Your task to perform on an android device: open sync settings in chrome Image 0: 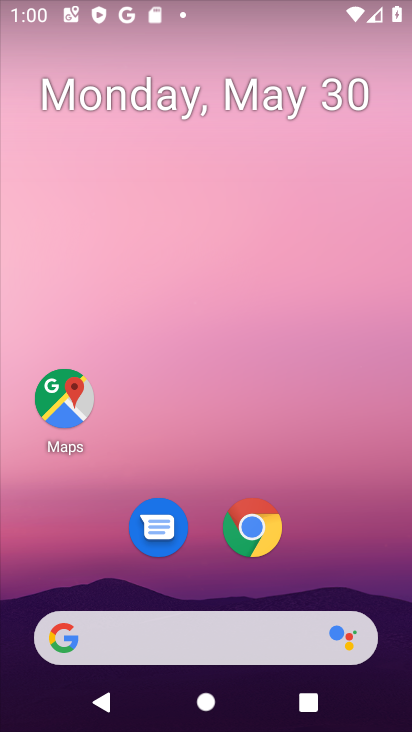
Step 0: click (263, 524)
Your task to perform on an android device: open sync settings in chrome Image 1: 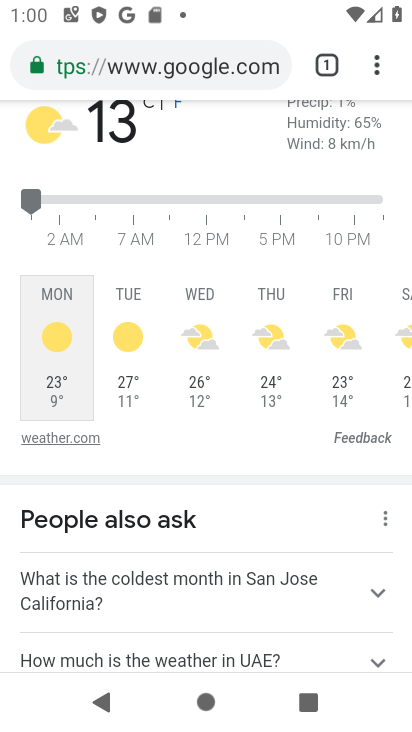
Step 1: click (384, 70)
Your task to perform on an android device: open sync settings in chrome Image 2: 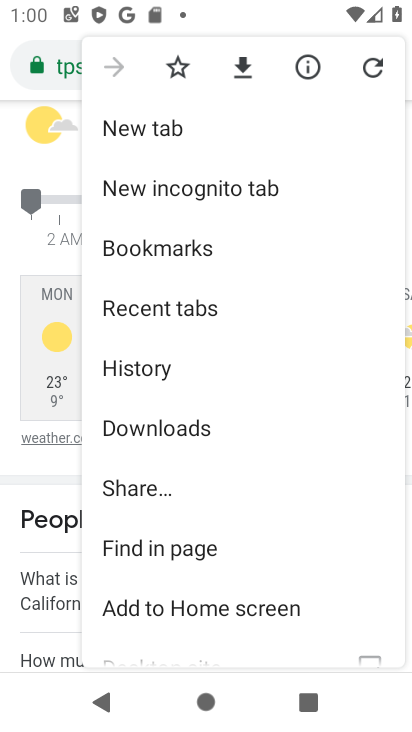
Step 2: drag from (273, 605) to (217, 282)
Your task to perform on an android device: open sync settings in chrome Image 3: 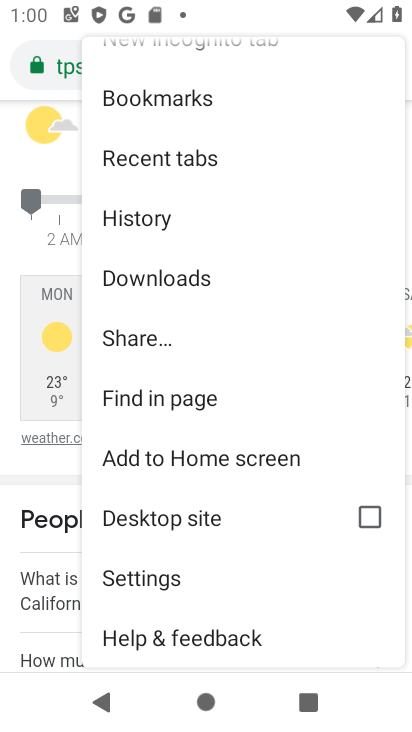
Step 3: click (184, 571)
Your task to perform on an android device: open sync settings in chrome Image 4: 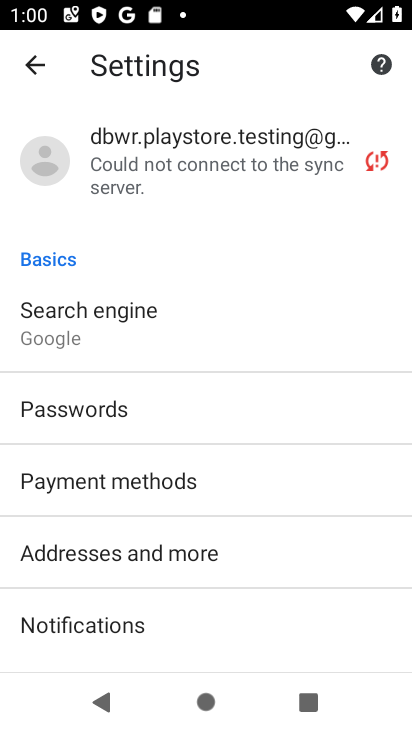
Step 4: click (213, 155)
Your task to perform on an android device: open sync settings in chrome Image 5: 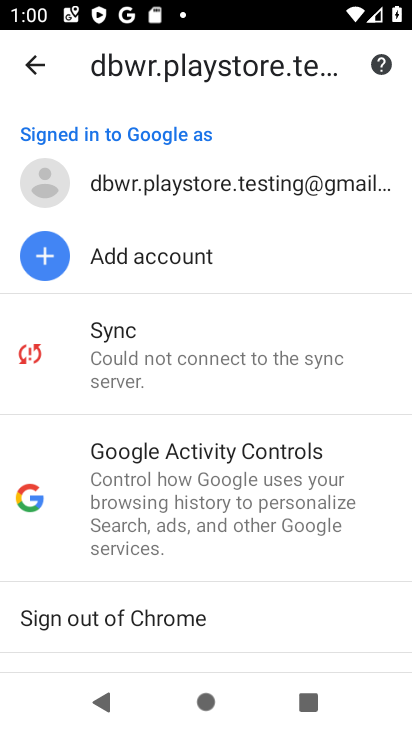
Step 5: click (230, 365)
Your task to perform on an android device: open sync settings in chrome Image 6: 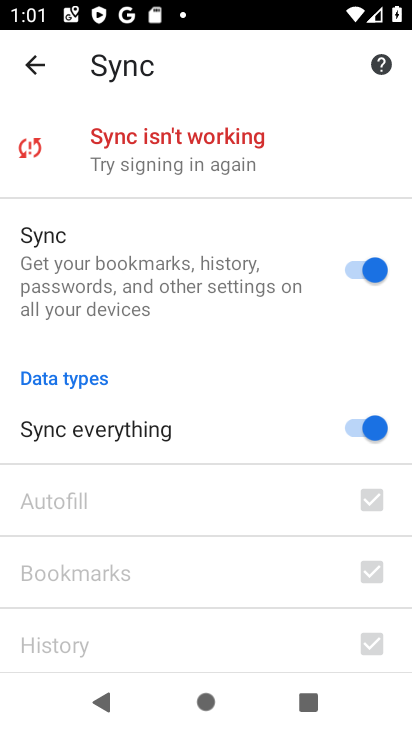
Step 6: task complete